Your task to perform on an android device: see creations saved in the google photos Image 0: 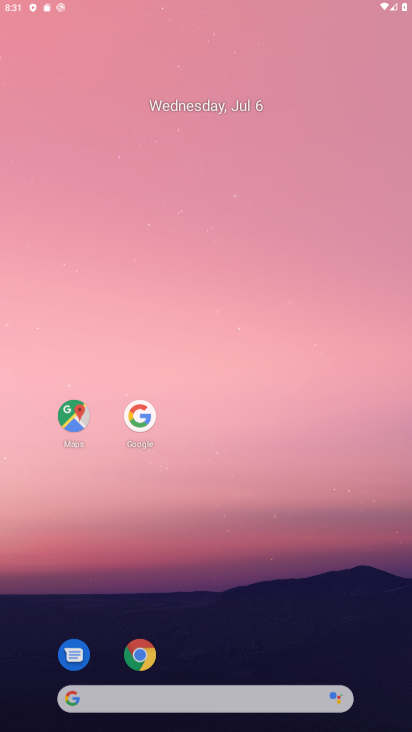
Step 0: drag from (253, 653) to (188, 175)
Your task to perform on an android device: see creations saved in the google photos Image 1: 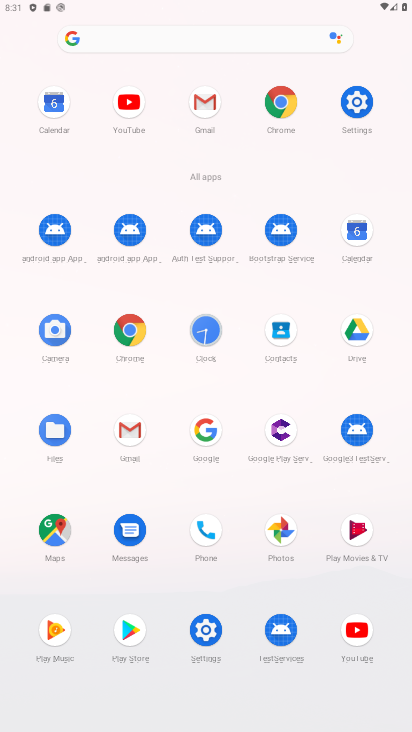
Step 1: click (286, 533)
Your task to perform on an android device: see creations saved in the google photos Image 2: 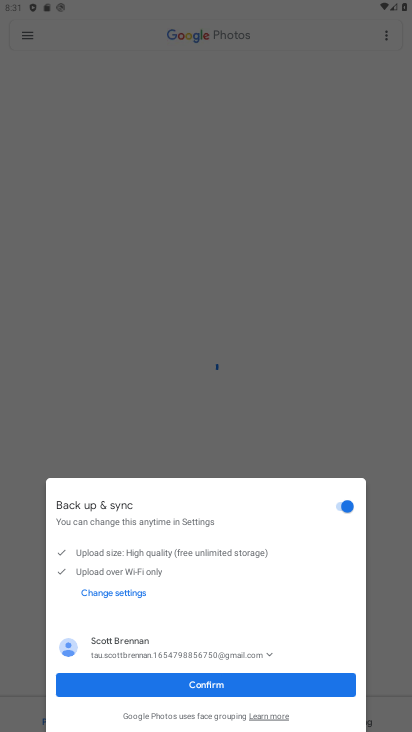
Step 2: click (198, 682)
Your task to perform on an android device: see creations saved in the google photos Image 3: 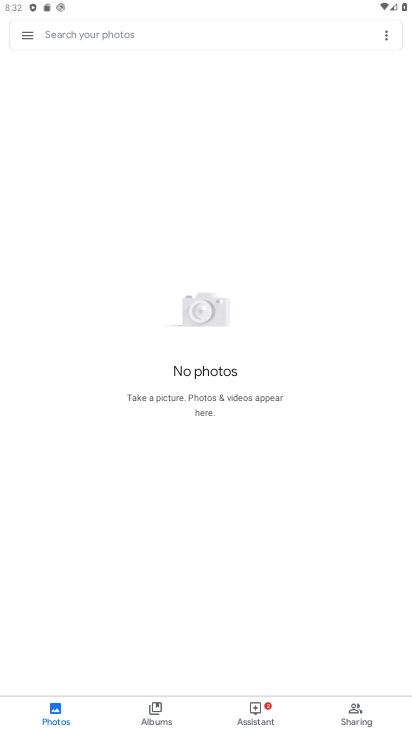
Step 3: click (159, 40)
Your task to perform on an android device: see creations saved in the google photos Image 4: 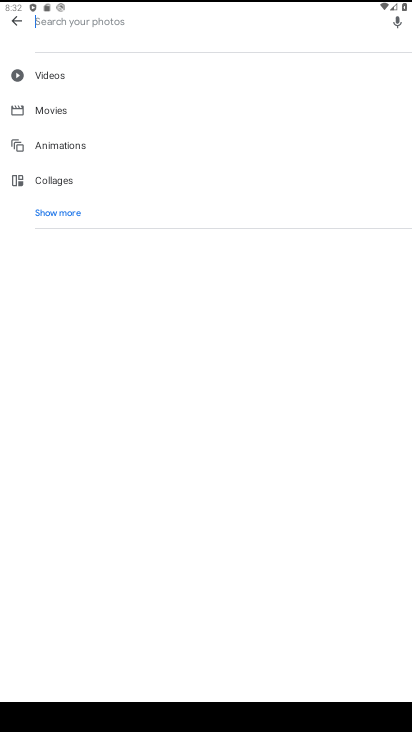
Step 4: click (57, 212)
Your task to perform on an android device: see creations saved in the google photos Image 5: 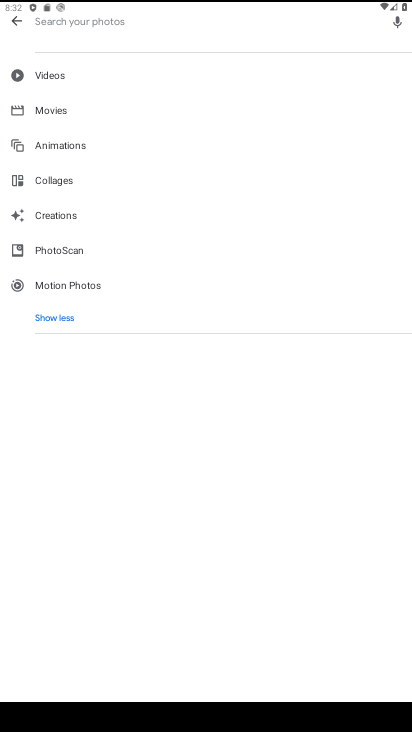
Step 5: click (52, 219)
Your task to perform on an android device: see creations saved in the google photos Image 6: 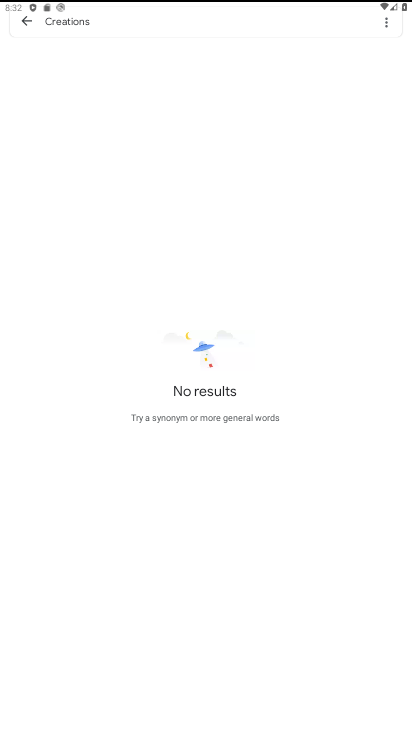
Step 6: task complete